Your task to perform on an android device: turn on the 24-hour format for clock Image 0: 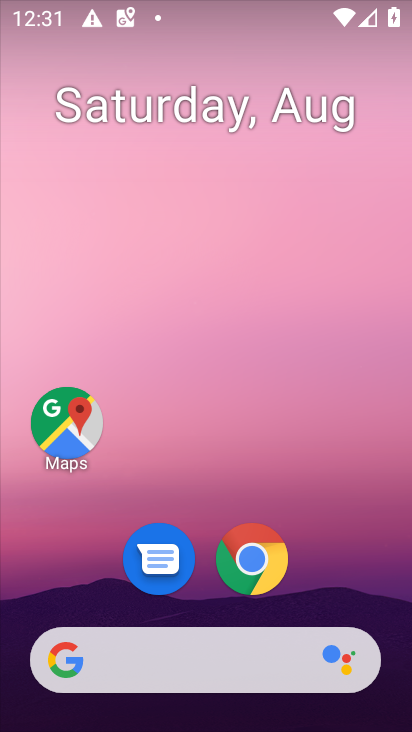
Step 0: drag from (376, 611) to (214, 55)
Your task to perform on an android device: turn on the 24-hour format for clock Image 1: 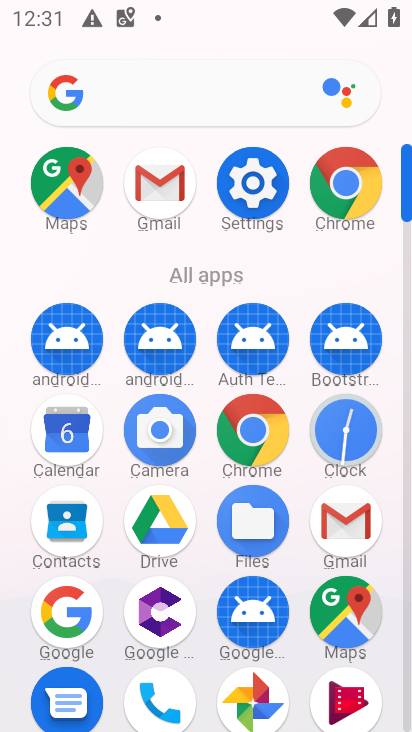
Step 1: click (356, 425)
Your task to perform on an android device: turn on the 24-hour format for clock Image 2: 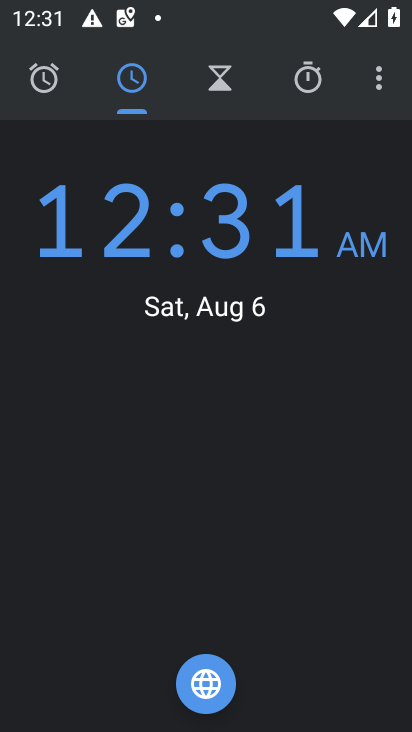
Step 2: click (380, 98)
Your task to perform on an android device: turn on the 24-hour format for clock Image 3: 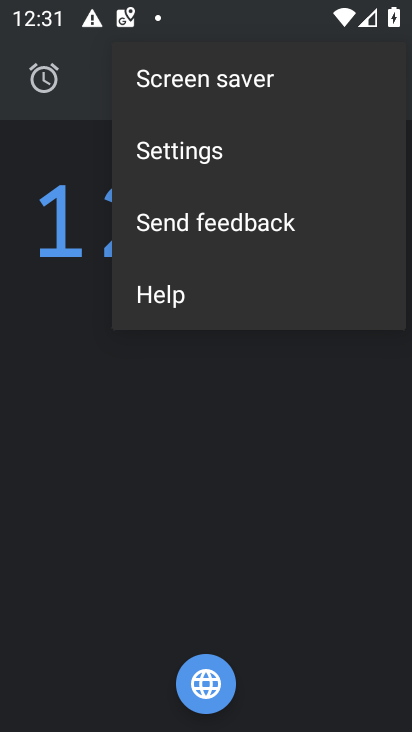
Step 3: click (321, 145)
Your task to perform on an android device: turn on the 24-hour format for clock Image 4: 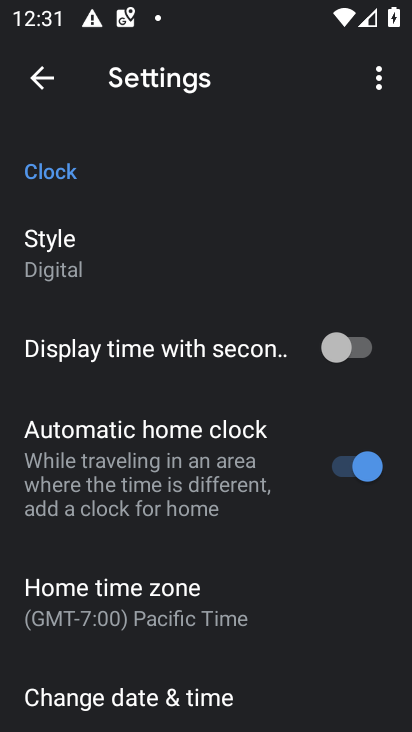
Step 4: click (303, 689)
Your task to perform on an android device: turn on the 24-hour format for clock Image 5: 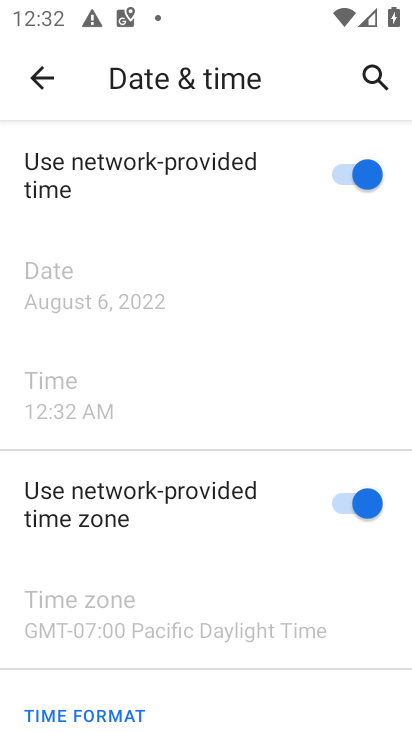
Step 5: drag from (303, 689) to (287, 328)
Your task to perform on an android device: turn on the 24-hour format for clock Image 6: 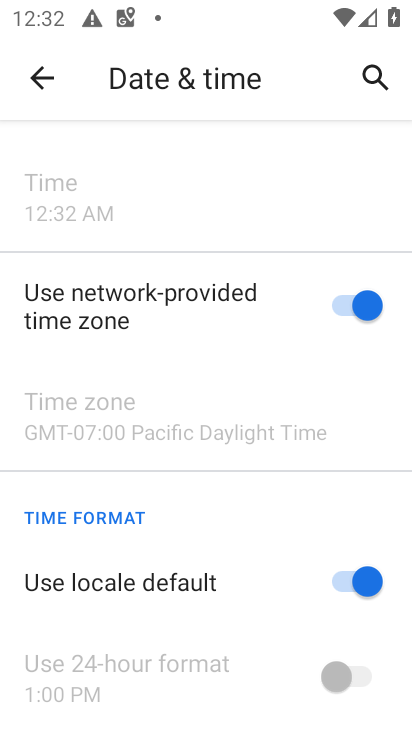
Step 6: click (344, 589)
Your task to perform on an android device: turn on the 24-hour format for clock Image 7: 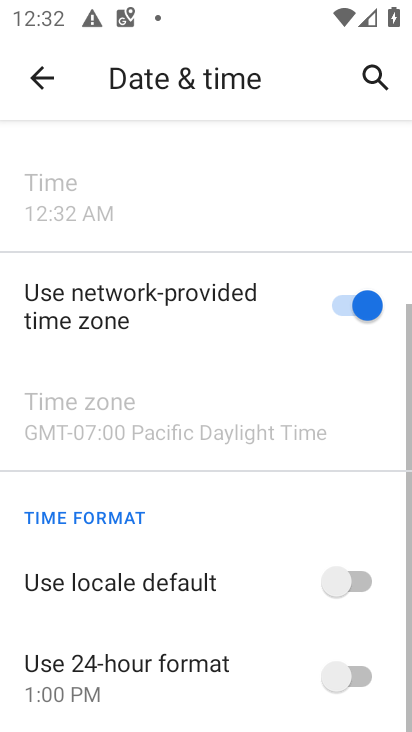
Step 7: click (353, 672)
Your task to perform on an android device: turn on the 24-hour format for clock Image 8: 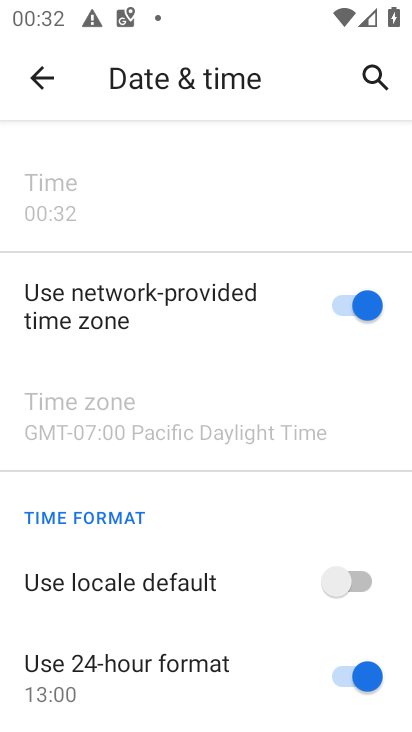
Step 8: task complete